Your task to perform on an android device: turn on the 12-hour format for clock Image 0: 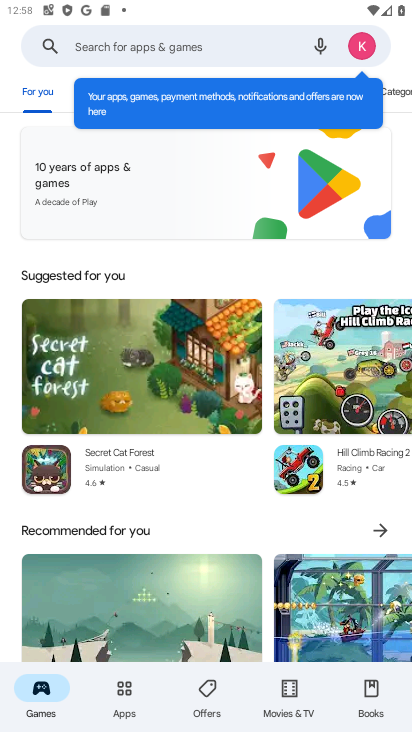
Step 0: press back button
Your task to perform on an android device: turn on the 12-hour format for clock Image 1: 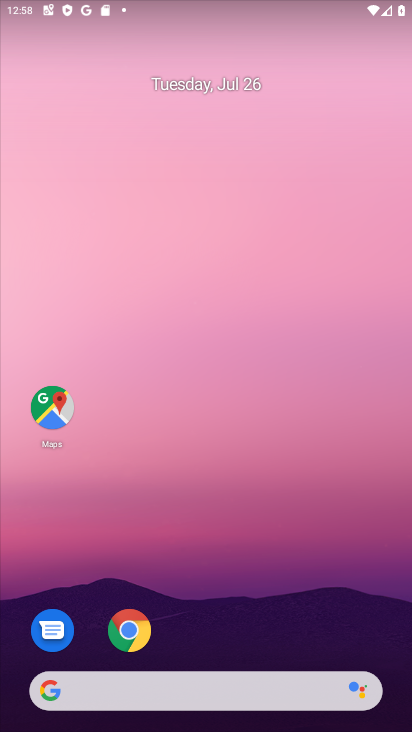
Step 1: drag from (176, 261) to (211, 54)
Your task to perform on an android device: turn on the 12-hour format for clock Image 2: 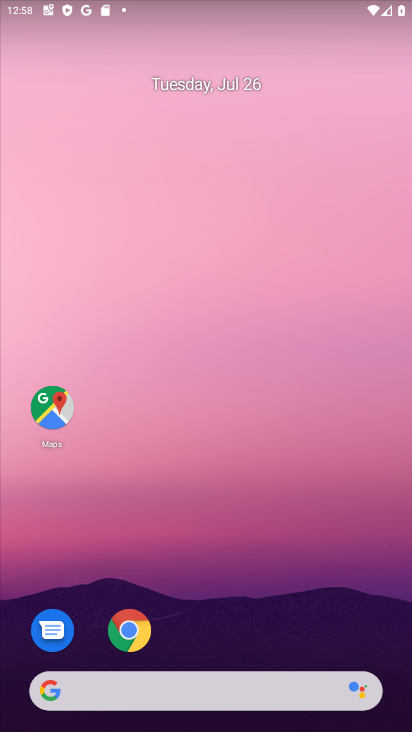
Step 2: drag from (191, 638) to (211, 2)
Your task to perform on an android device: turn on the 12-hour format for clock Image 3: 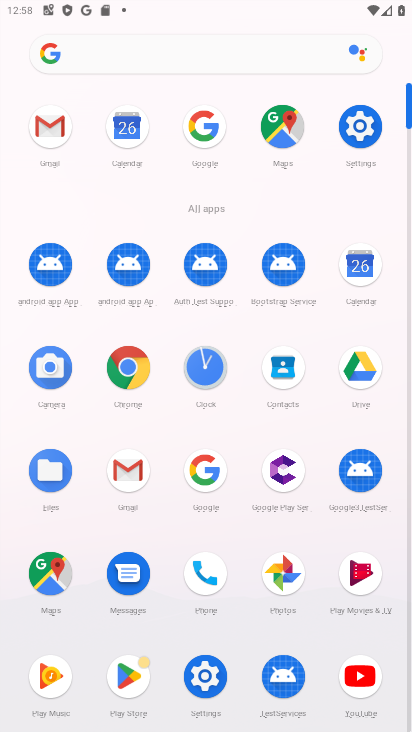
Step 3: click (347, 129)
Your task to perform on an android device: turn on the 12-hour format for clock Image 4: 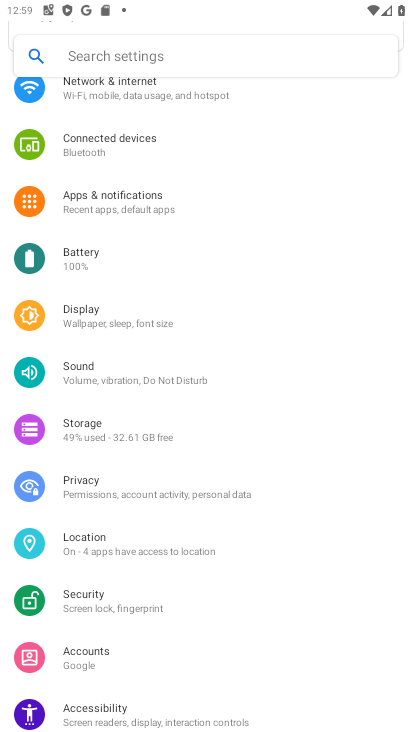
Step 4: press back button
Your task to perform on an android device: turn on the 12-hour format for clock Image 5: 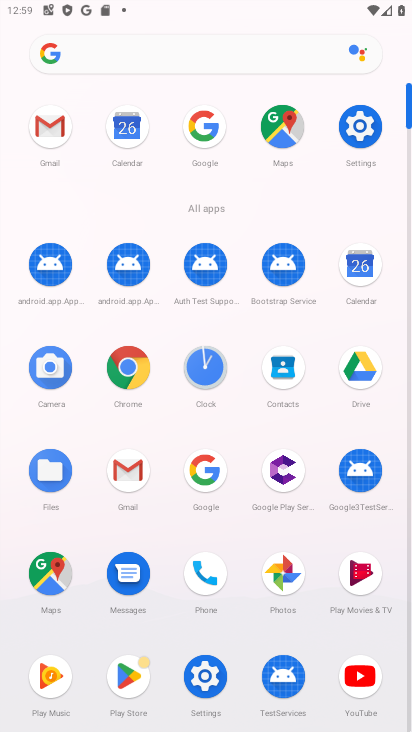
Step 5: click (206, 374)
Your task to perform on an android device: turn on the 12-hour format for clock Image 6: 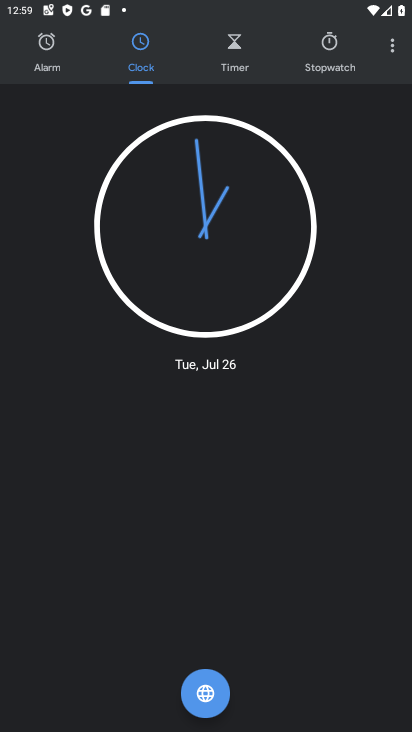
Step 6: click (397, 51)
Your task to perform on an android device: turn on the 12-hour format for clock Image 7: 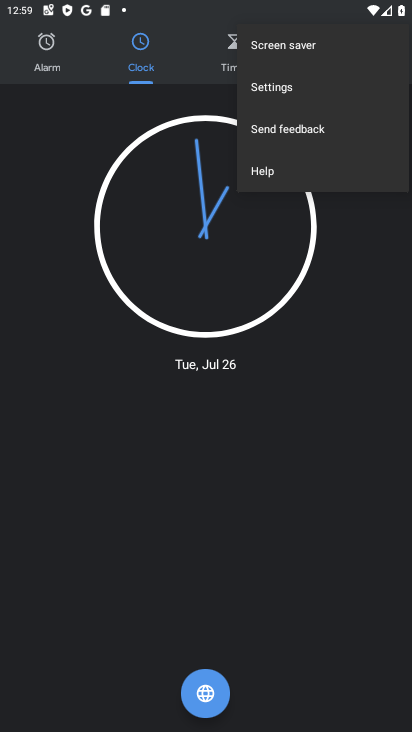
Step 7: click (263, 91)
Your task to perform on an android device: turn on the 12-hour format for clock Image 8: 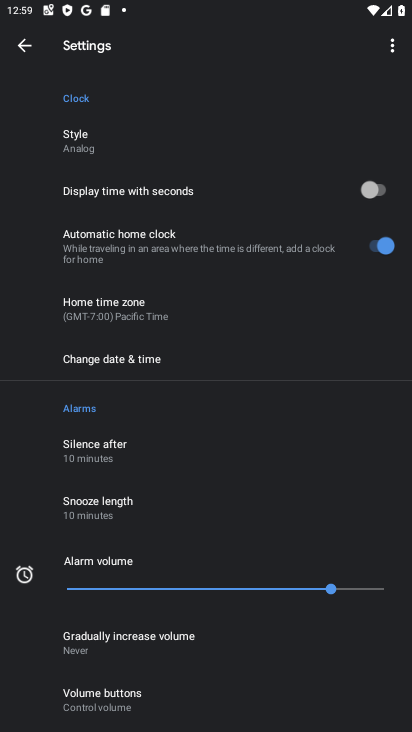
Step 8: click (122, 361)
Your task to perform on an android device: turn on the 12-hour format for clock Image 9: 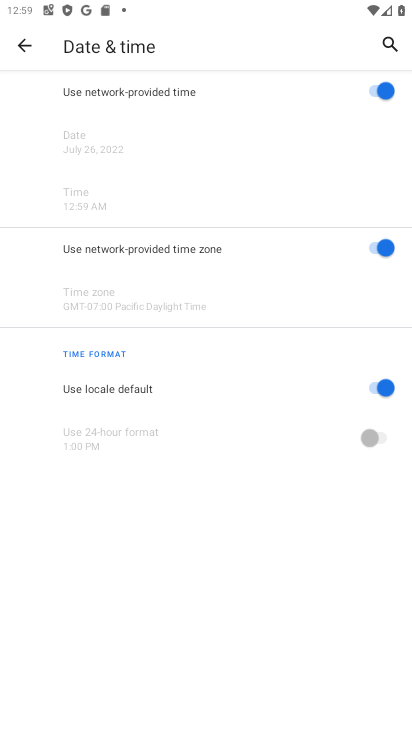
Step 9: task complete